Your task to perform on an android device: open app "Firefox Browser" (install if not already installed) Image 0: 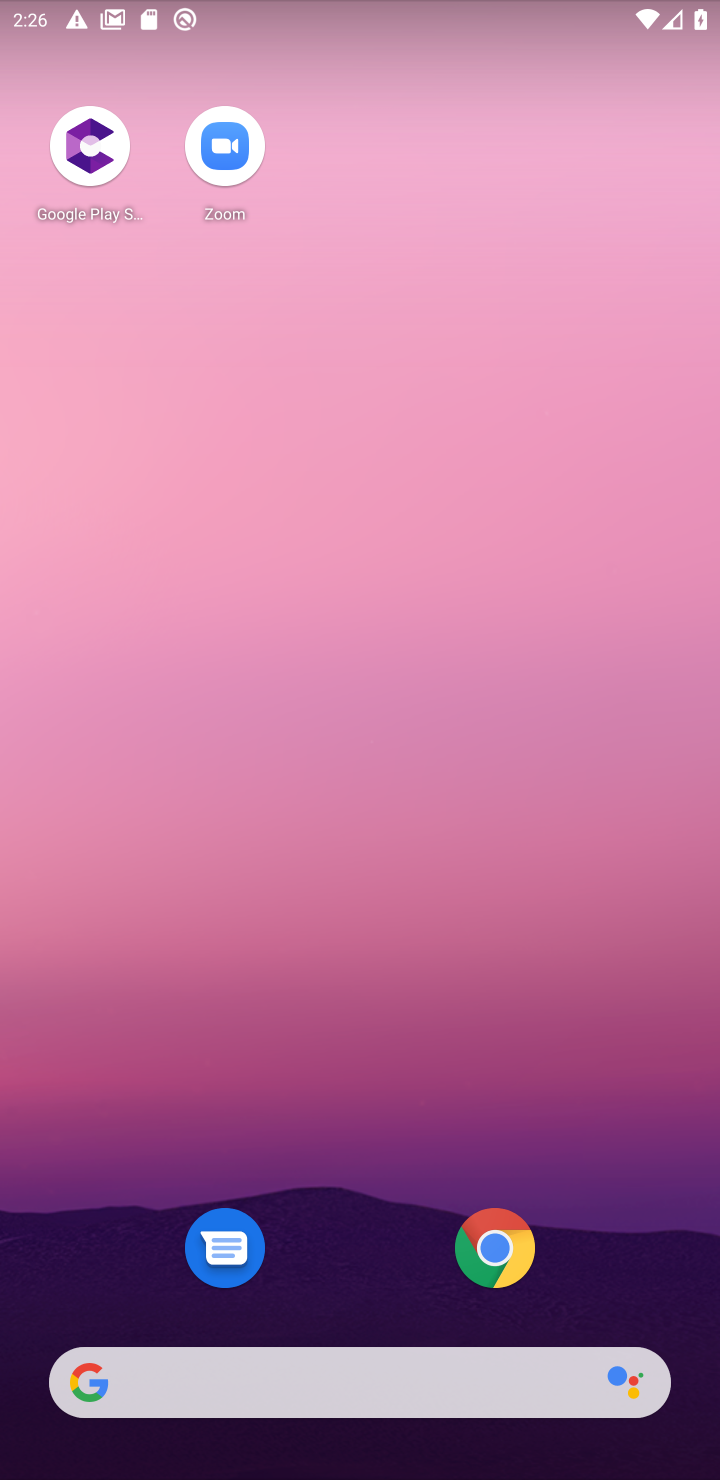
Step 0: drag from (365, 1330) to (589, 184)
Your task to perform on an android device: open app "Firefox Browser" (install if not already installed) Image 1: 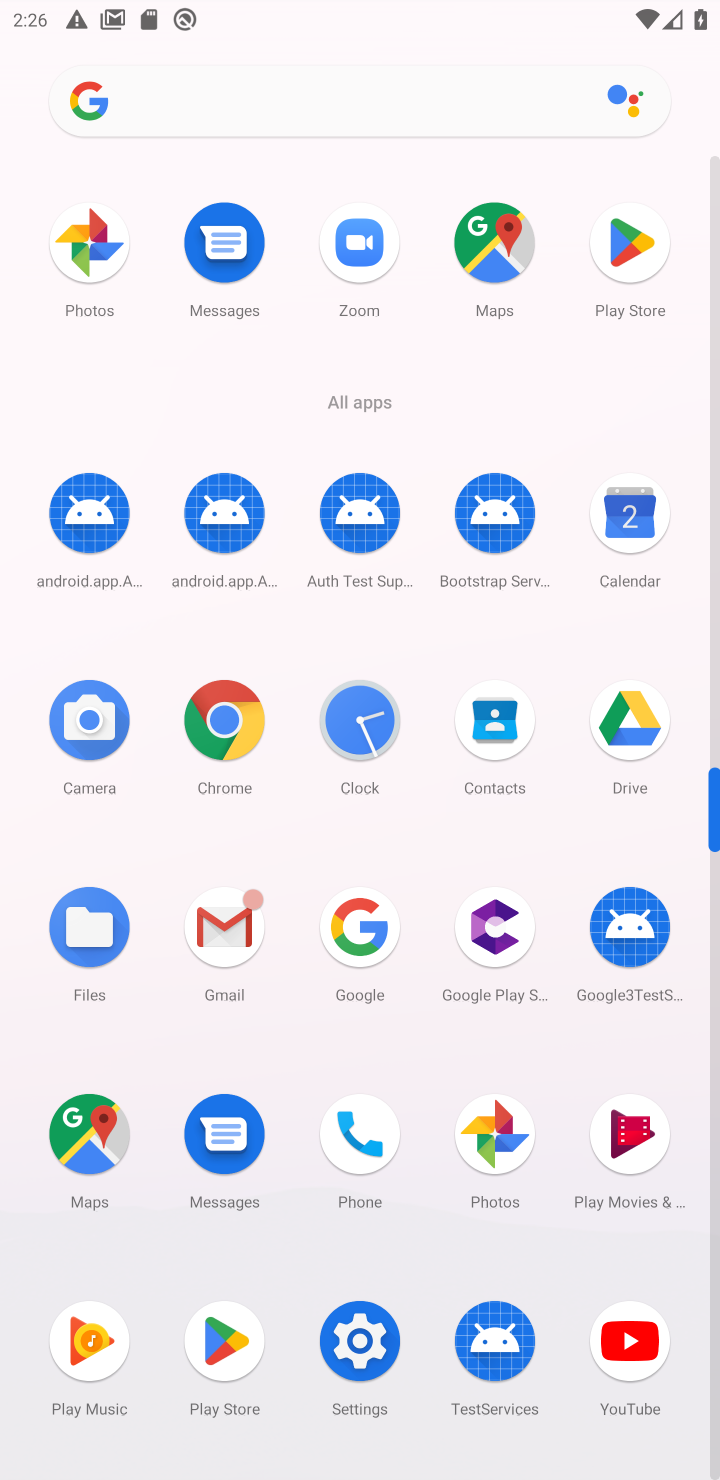
Step 1: click (204, 1364)
Your task to perform on an android device: open app "Firefox Browser" (install if not already installed) Image 2: 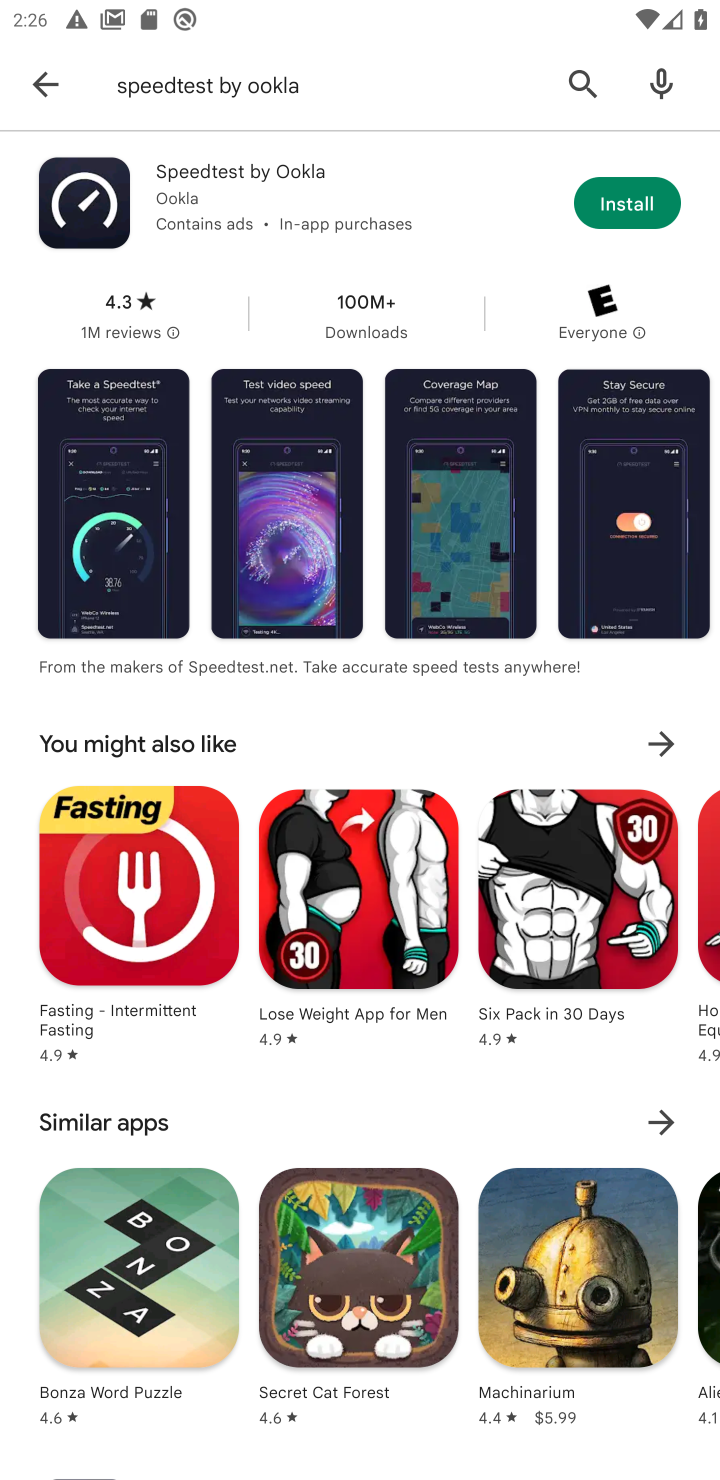
Step 2: click (43, 75)
Your task to perform on an android device: open app "Firefox Browser" (install if not already installed) Image 3: 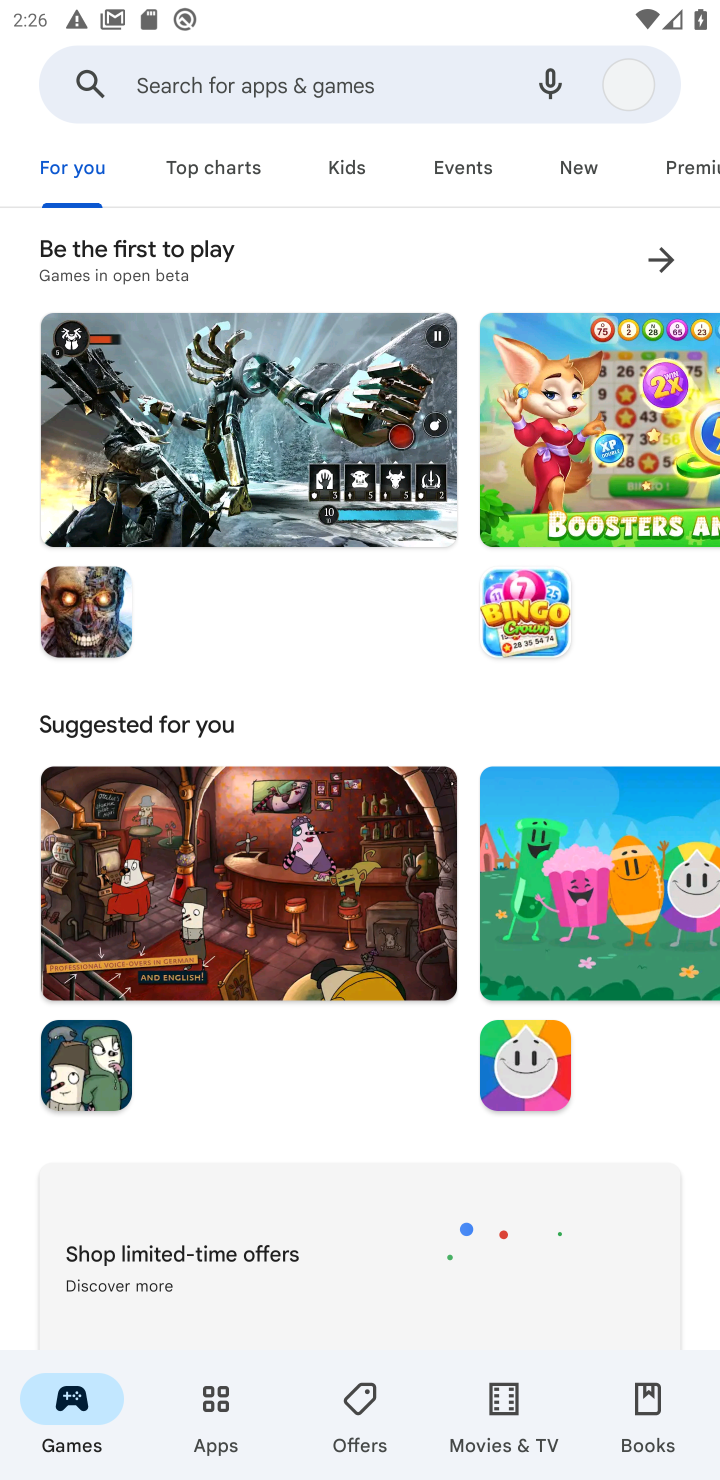
Step 3: click (302, 82)
Your task to perform on an android device: open app "Firefox Browser" (install if not already installed) Image 4: 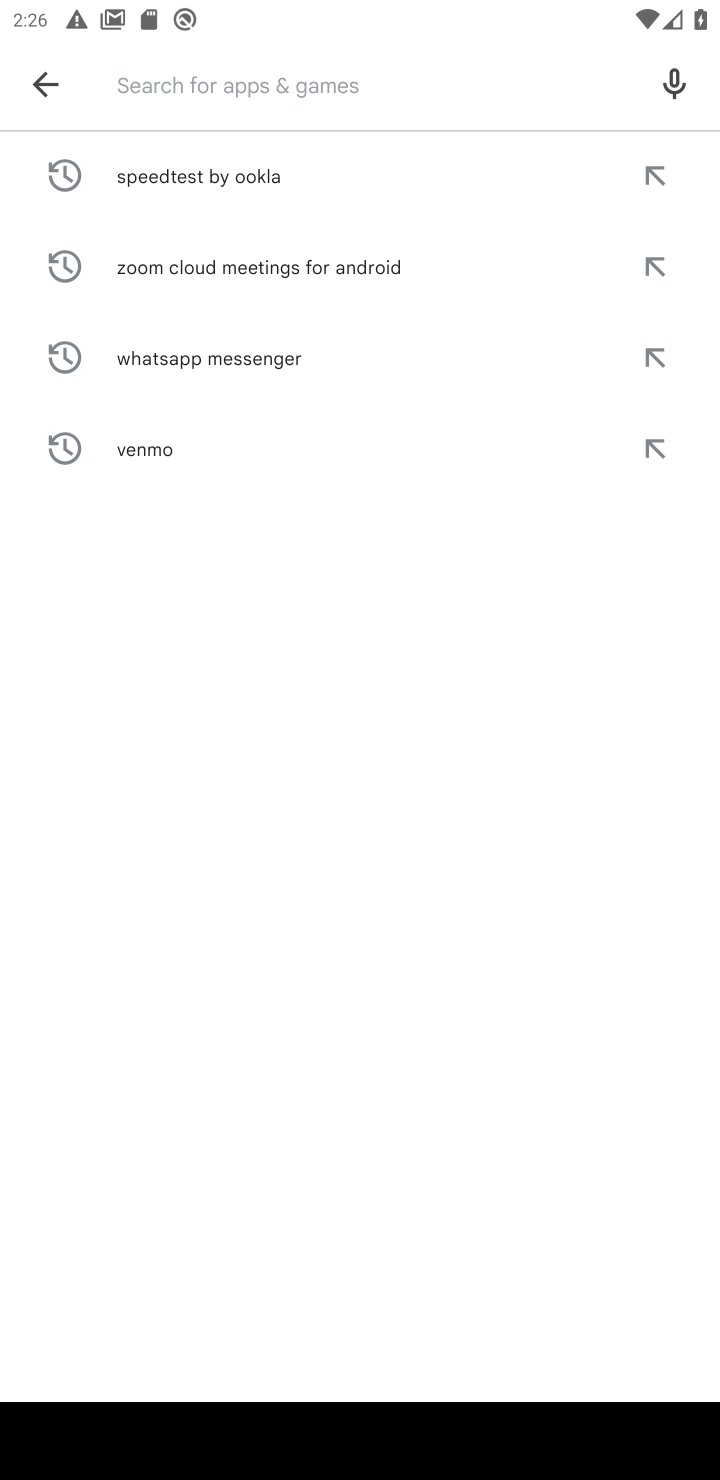
Step 4: type "Firefox Browse"
Your task to perform on an android device: open app "Firefox Browser" (install if not already installed) Image 5: 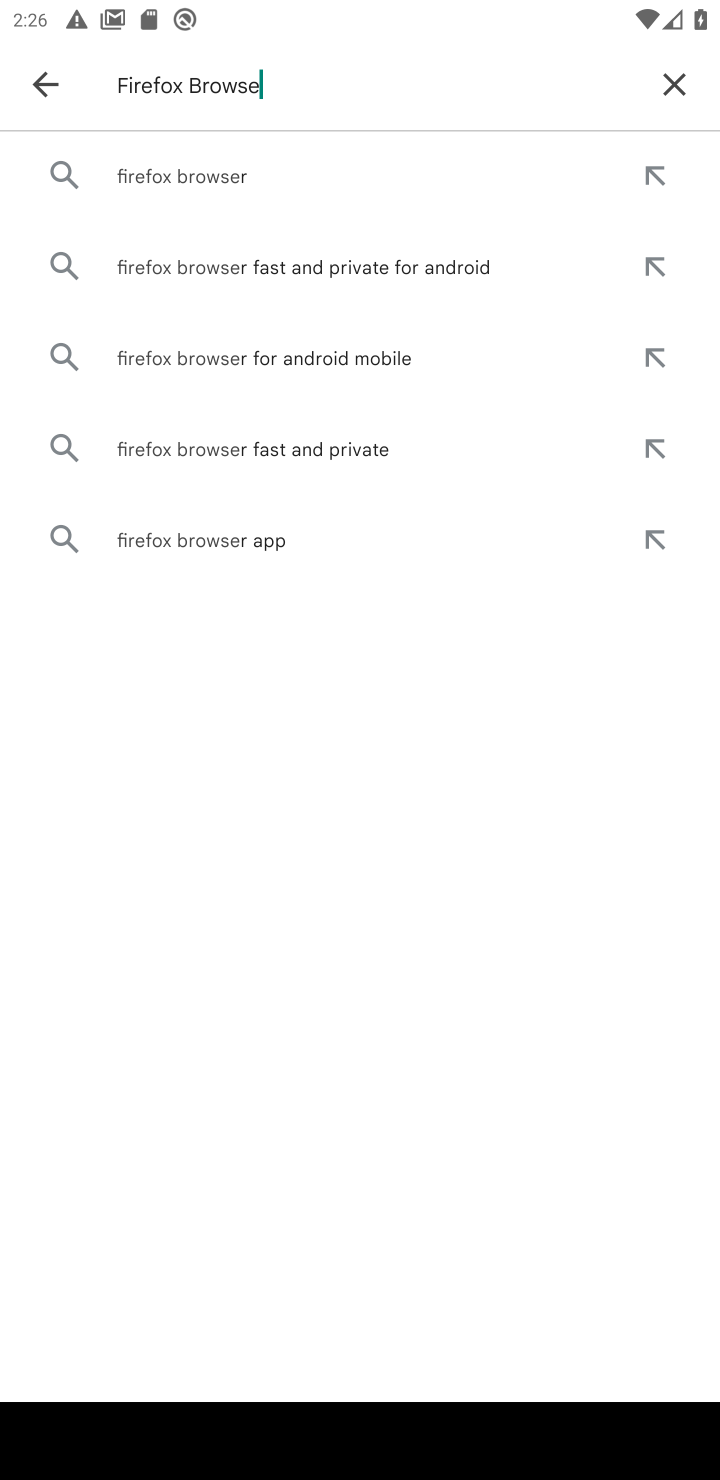
Step 5: click (225, 181)
Your task to perform on an android device: open app "Firefox Browser" (install if not already installed) Image 6: 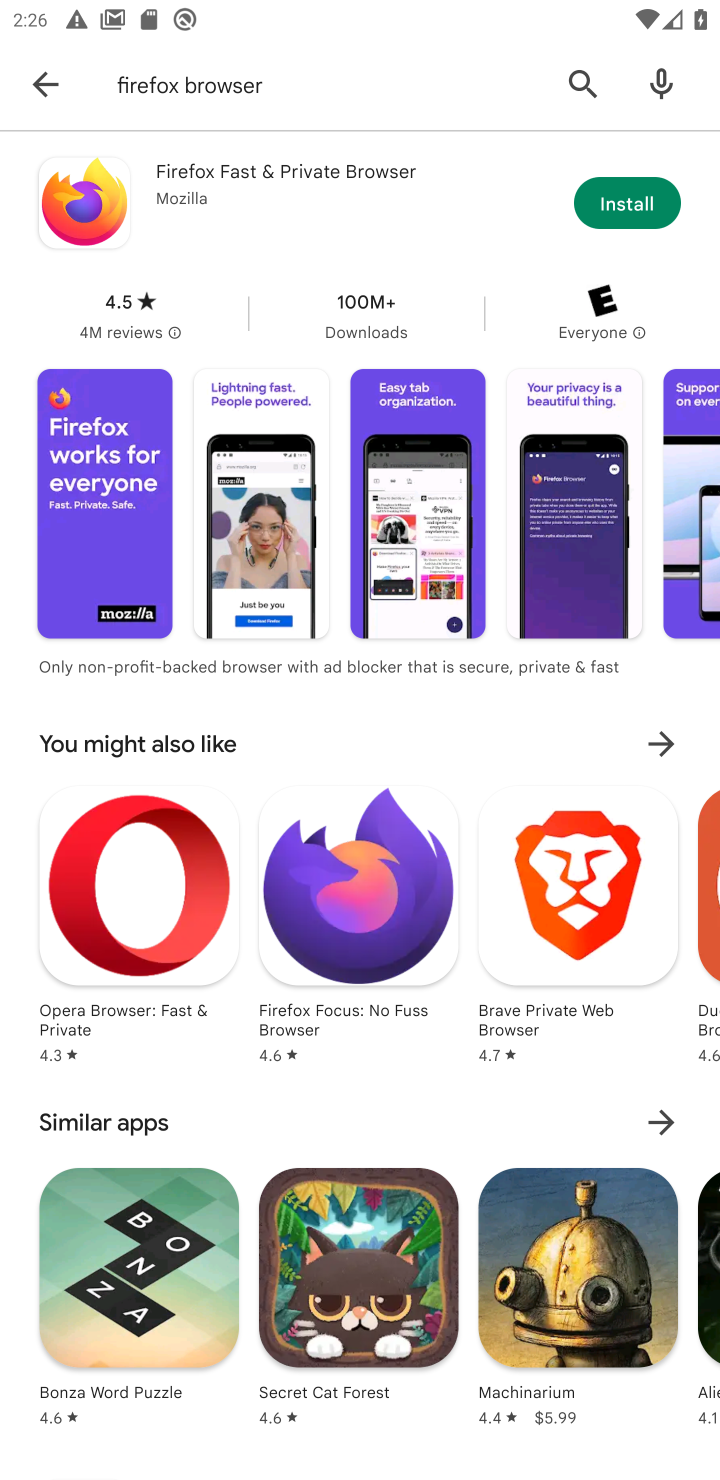
Step 6: task complete